Your task to perform on an android device: find photos in the google photos app Image 0: 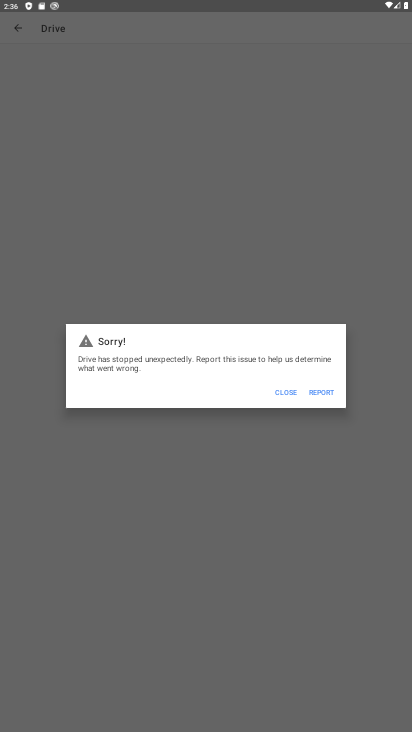
Step 0: press home button
Your task to perform on an android device: find photos in the google photos app Image 1: 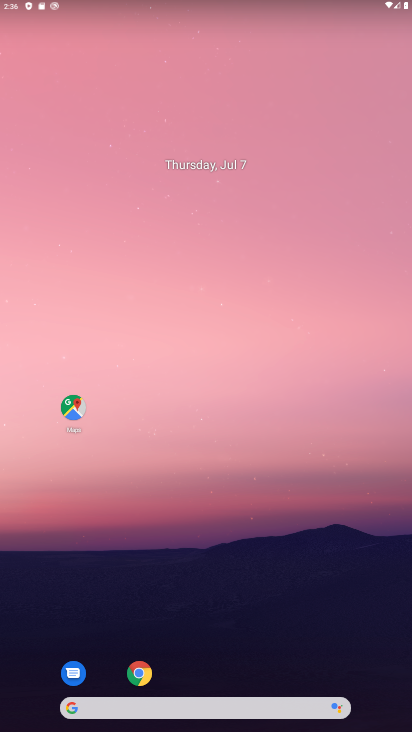
Step 1: drag from (211, 487) to (225, 133)
Your task to perform on an android device: find photos in the google photos app Image 2: 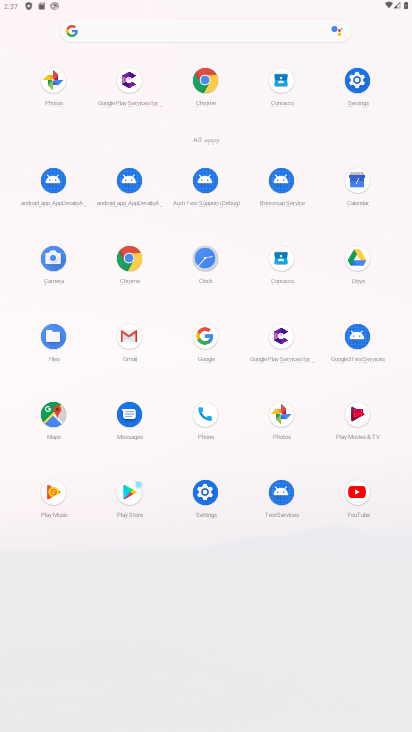
Step 2: click (279, 420)
Your task to perform on an android device: find photos in the google photos app Image 3: 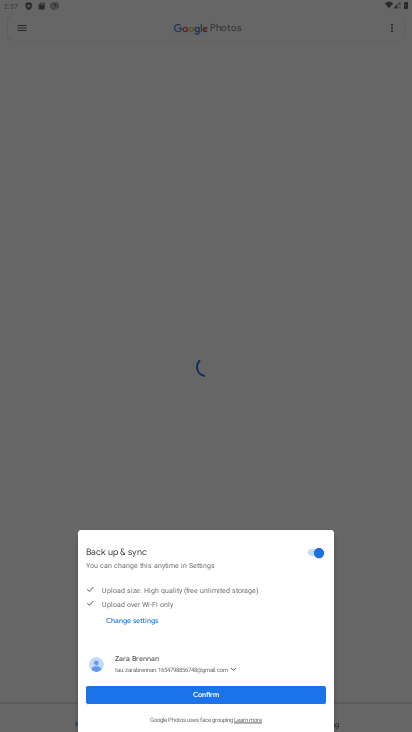
Step 3: click (218, 695)
Your task to perform on an android device: find photos in the google photos app Image 4: 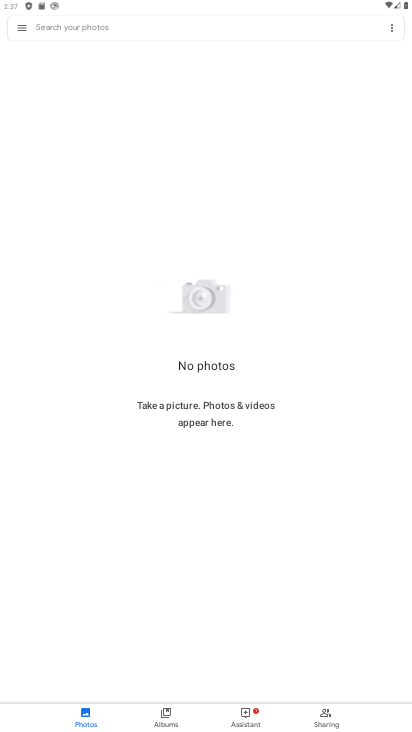
Step 4: task complete